Your task to perform on an android device: Open Maps and search for coffee Image 0: 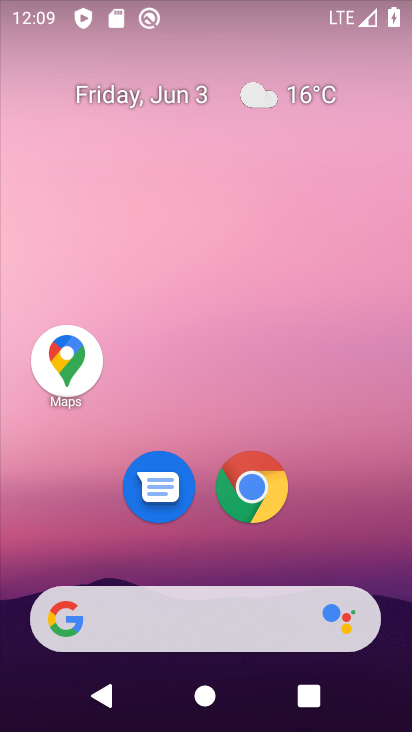
Step 0: click (83, 377)
Your task to perform on an android device: Open Maps and search for coffee Image 1: 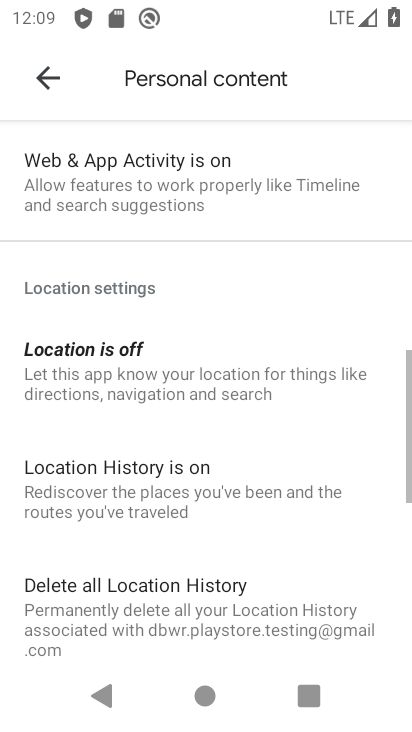
Step 1: click (45, 70)
Your task to perform on an android device: Open Maps and search for coffee Image 2: 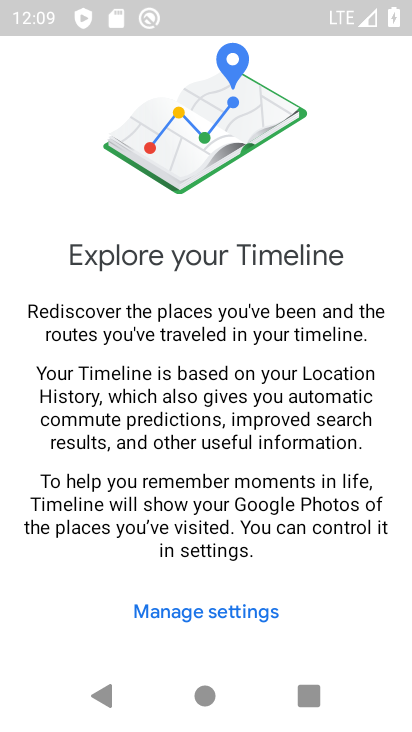
Step 2: press back button
Your task to perform on an android device: Open Maps and search for coffee Image 3: 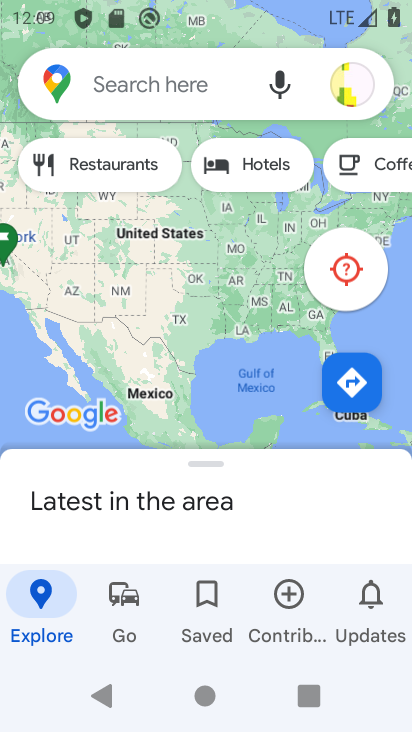
Step 3: click (155, 92)
Your task to perform on an android device: Open Maps and search for coffee Image 4: 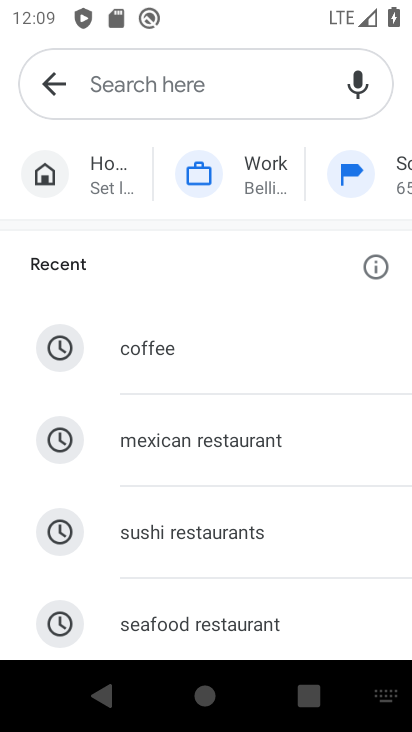
Step 4: click (156, 340)
Your task to perform on an android device: Open Maps and search for coffee Image 5: 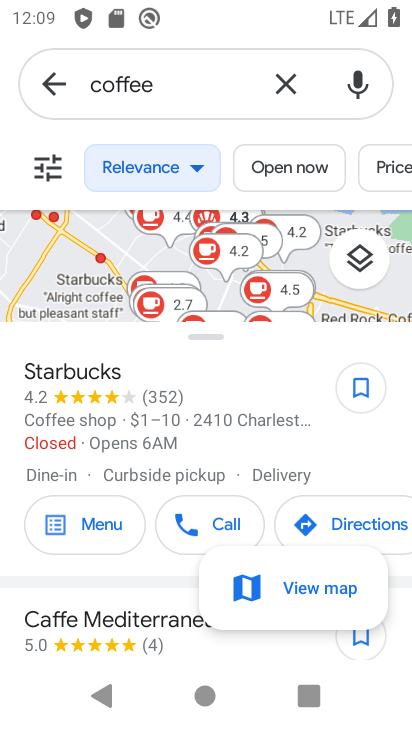
Step 5: task complete